Your task to perform on an android device: check google app version Image 0: 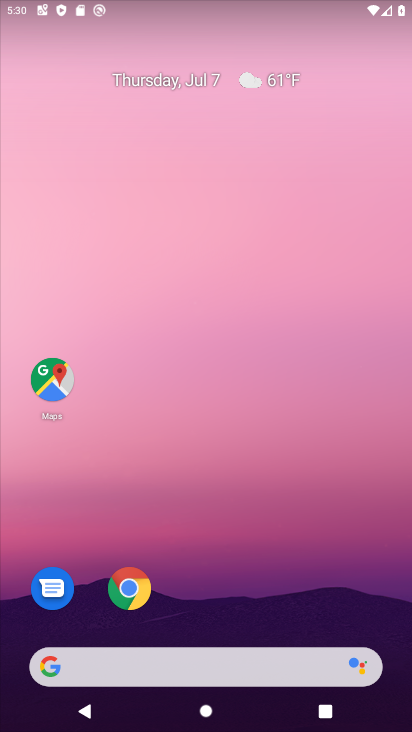
Step 0: drag from (237, 575) to (258, 17)
Your task to perform on an android device: check google app version Image 1: 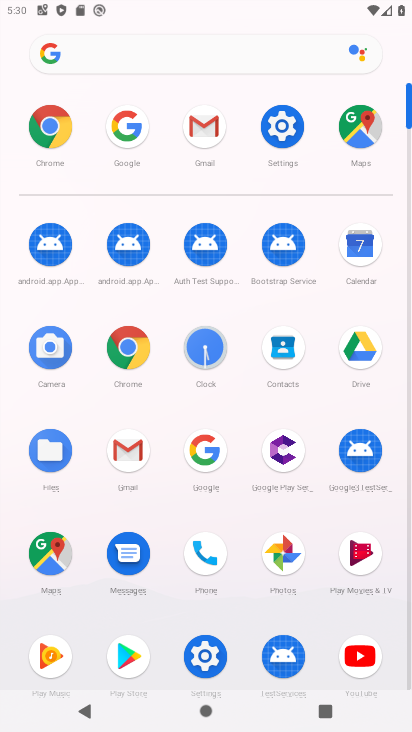
Step 1: click (126, 133)
Your task to perform on an android device: check google app version Image 2: 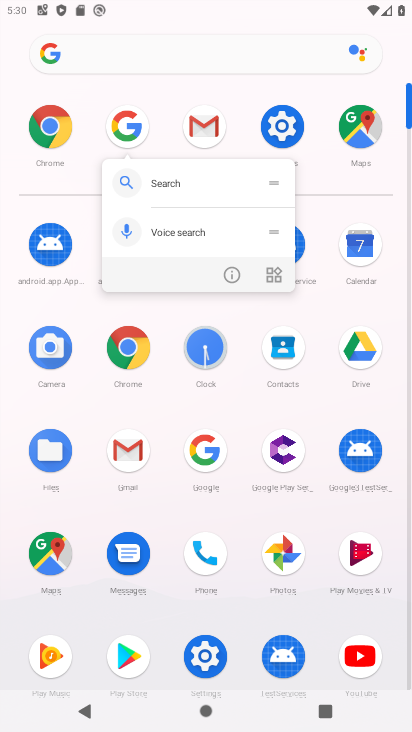
Step 2: click (140, 130)
Your task to perform on an android device: check google app version Image 3: 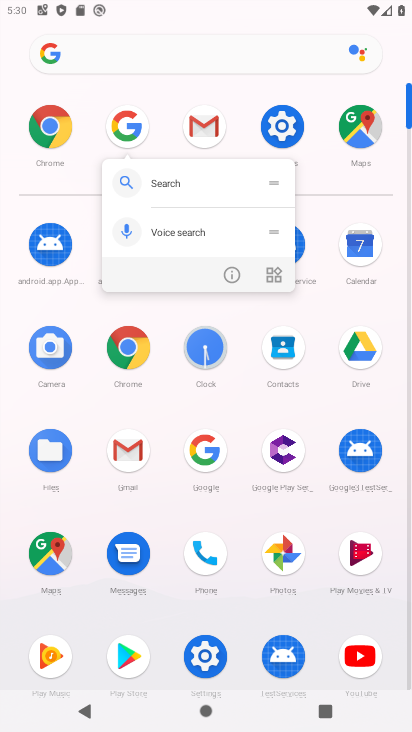
Step 3: click (231, 276)
Your task to perform on an android device: check google app version Image 4: 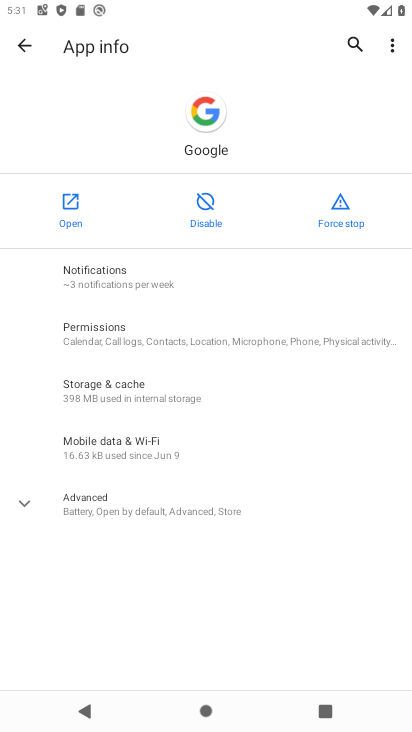
Step 4: click (99, 493)
Your task to perform on an android device: check google app version Image 5: 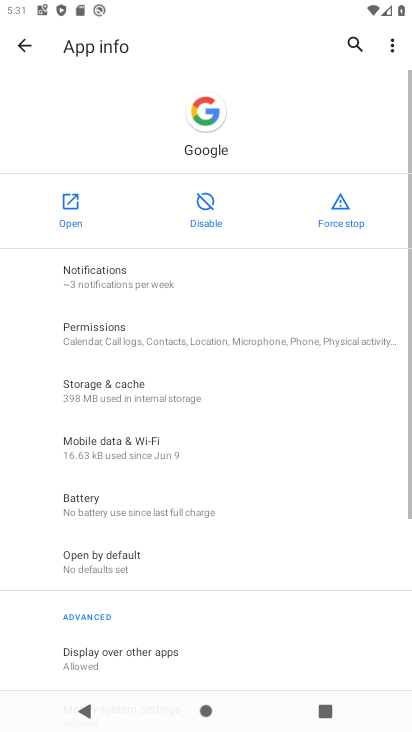
Step 5: task complete